Your task to perform on an android device: Go to Amazon Image 0: 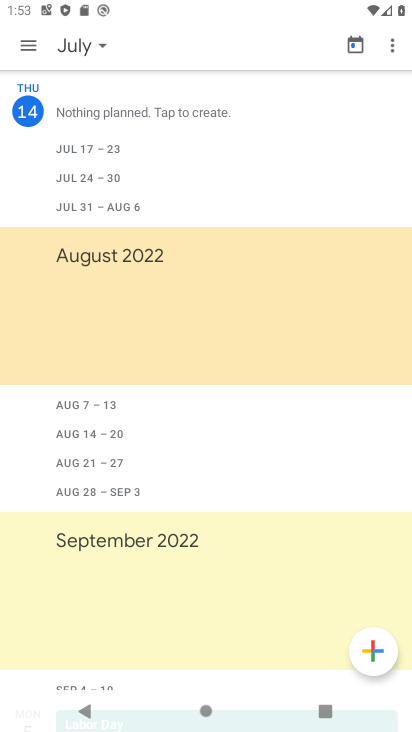
Step 0: press home button
Your task to perform on an android device: Go to Amazon Image 1: 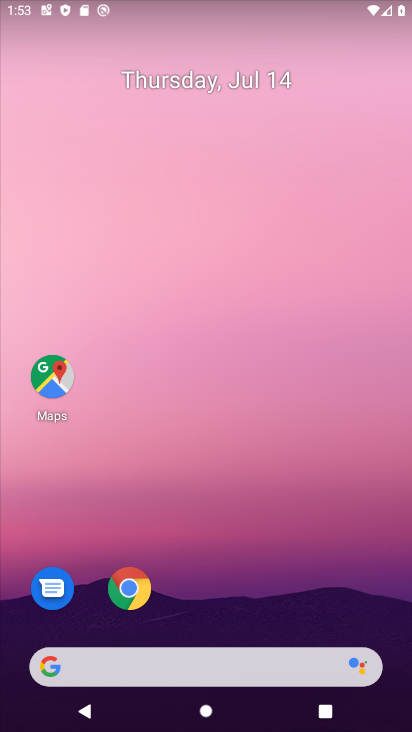
Step 1: click (123, 595)
Your task to perform on an android device: Go to Amazon Image 2: 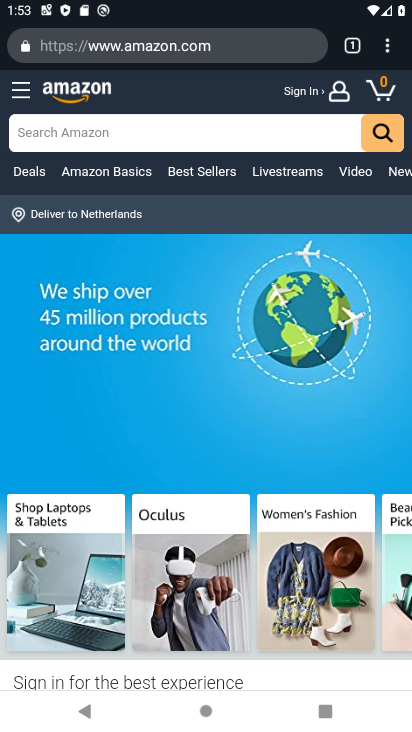
Step 2: task complete